Your task to perform on an android device: turn on javascript in the chrome app Image 0: 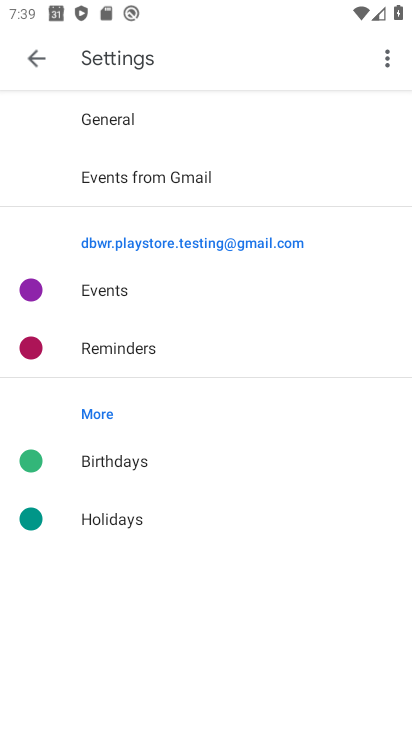
Step 0: press home button
Your task to perform on an android device: turn on javascript in the chrome app Image 1: 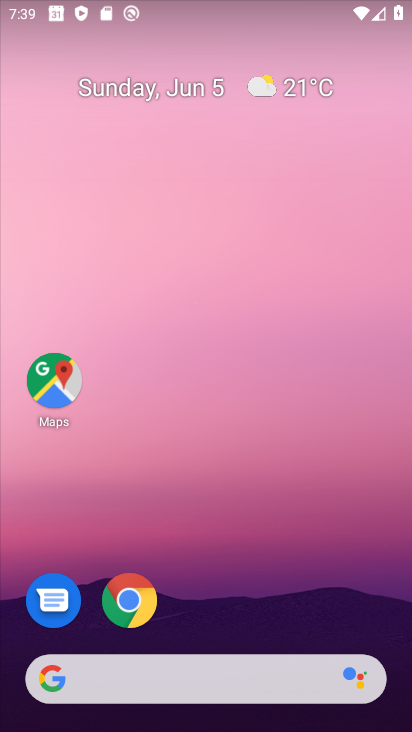
Step 1: click (130, 603)
Your task to perform on an android device: turn on javascript in the chrome app Image 2: 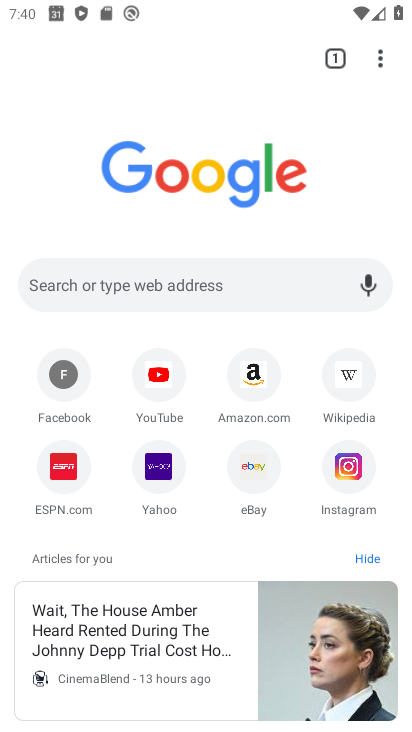
Step 2: click (381, 62)
Your task to perform on an android device: turn on javascript in the chrome app Image 3: 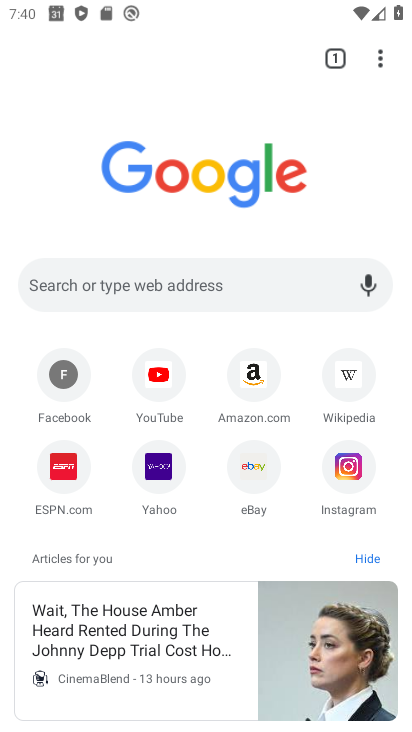
Step 3: click (387, 57)
Your task to perform on an android device: turn on javascript in the chrome app Image 4: 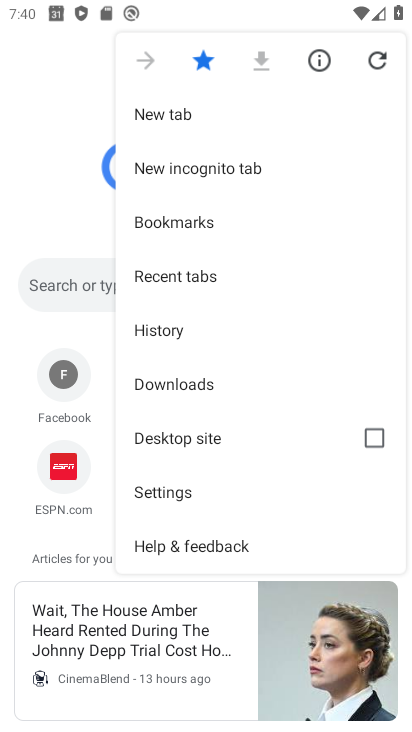
Step 4: click (166, 491)
Your task to perform on an android device: turn on javascript in the chrome app Image 5: 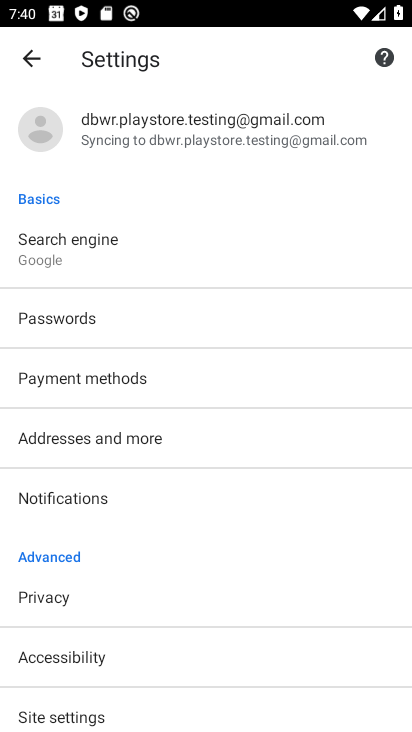
Step 5: click (91, 711)
Your task to perform on an android device: turn on javascript in the chrome app Image 6: 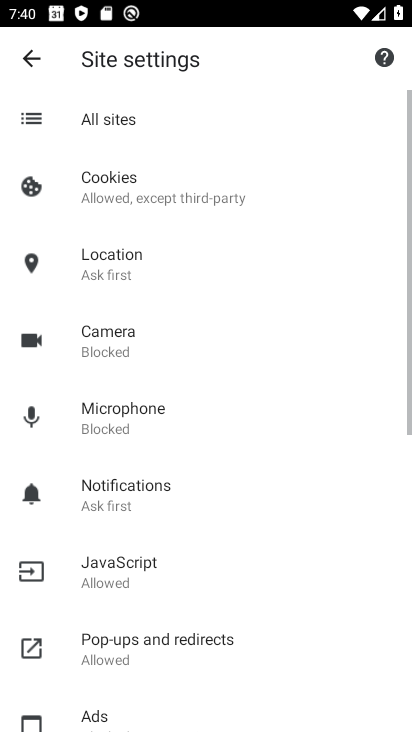
Step 6: click (119, 577)
Your task to perform on an android device: turn on javascript in the chrome app Image 7: 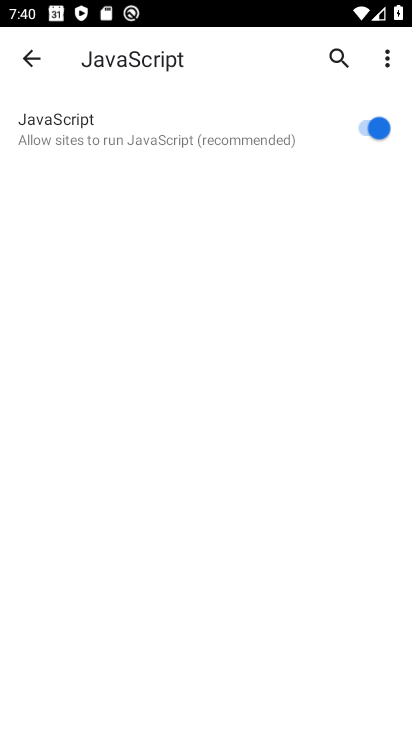
Step 7: task complete